Your task to perform on an android device: turn on data saver in the chrome app Image 0: 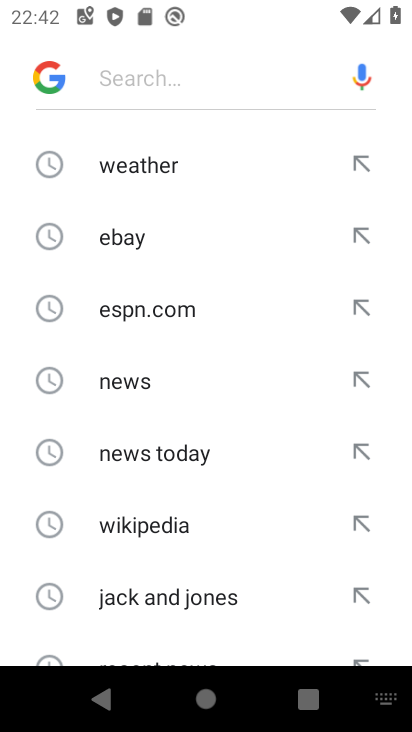
Step 0: press home button
Your task to perform on an android device: turn on data saver in the chrome app Image 1: 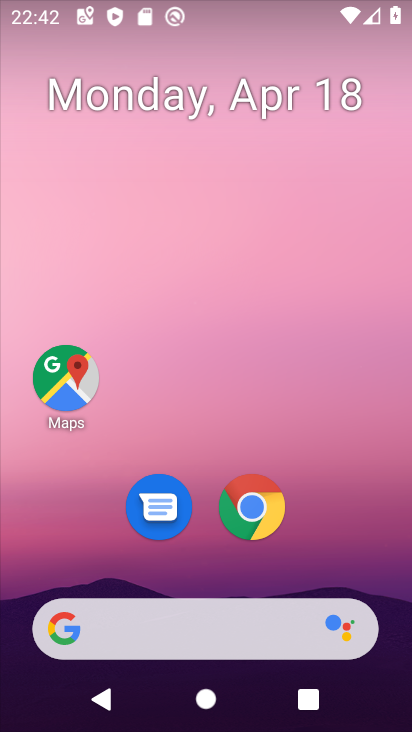
Step 1: click (262, 510)
Your task to perform on an android device: turn on data saver in the chrome app Image 2: 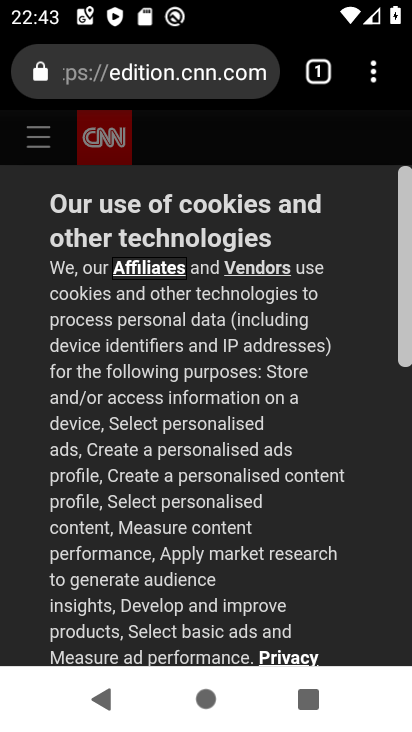
Step 2: press home button
Your task to perform on an android device: turn on data saver in the chrome app Image 3: 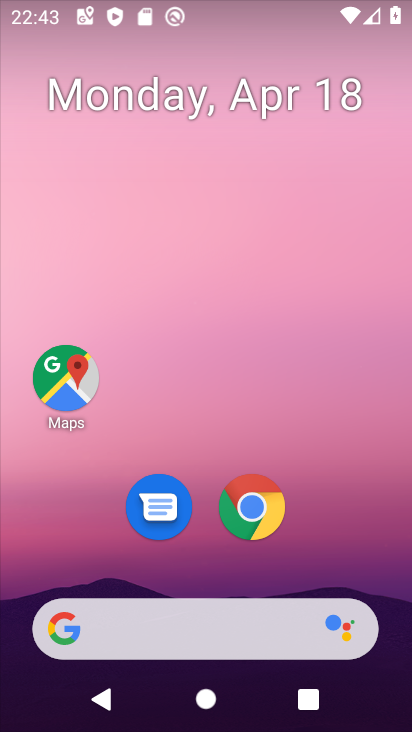
Step 3: click (258, 511)
Your task to perform on an android device: turn on data saver in the chrome app Image 4: 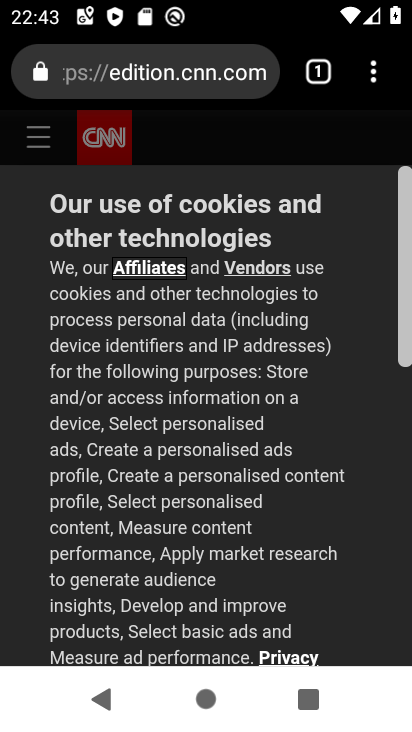
Step 4: click (371, 63)
Your task to perform on an android device: turn on data saver in the chrome app Image 5: 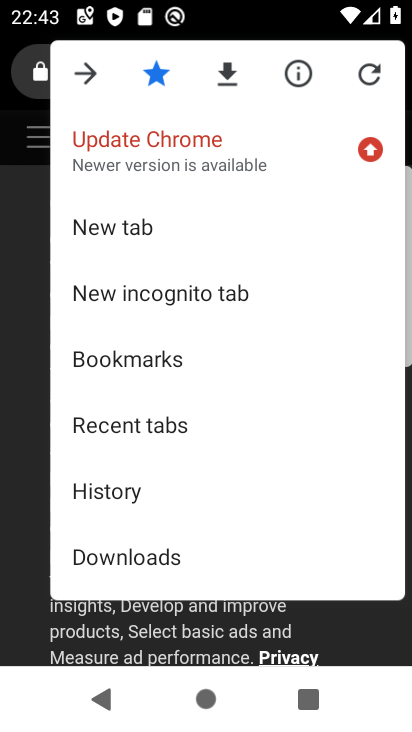
Step 5: drag from (227, 460) to (280, 251)
Your task to perform on an android device: turn on data saver in the chrome app Image 6: 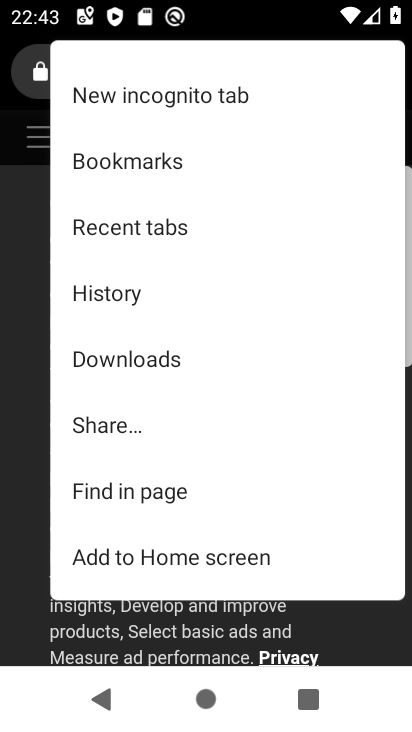
Step 6: drag from (201, 501) to (263, 180)
Your task to perform on an android device: turn on data saver in the chrome app Image 7: 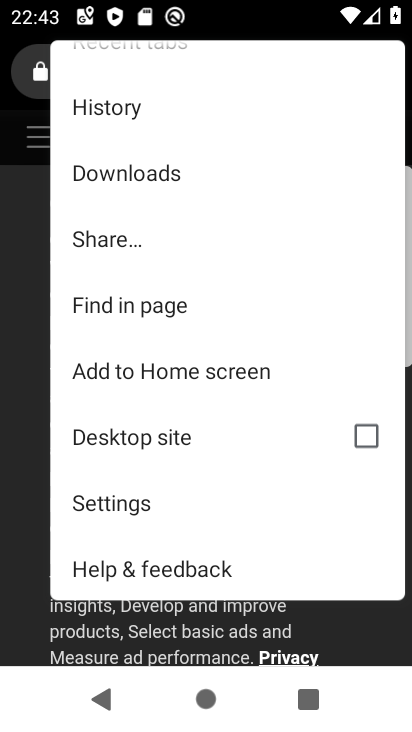
Step 7: click (162, 502)
Your task to perform on an android device: turn on data saver in the chrome app Image 8: 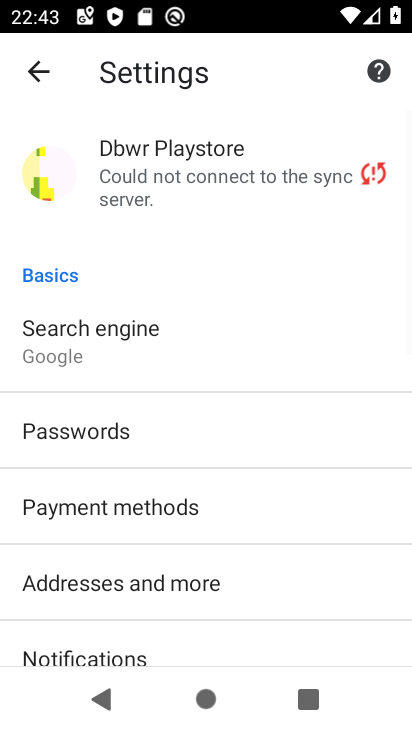
Step 8: drag from (241, 533) to (284, 219)
Your task to perform on an android device: turn on data saver in the chrome app Image 9: 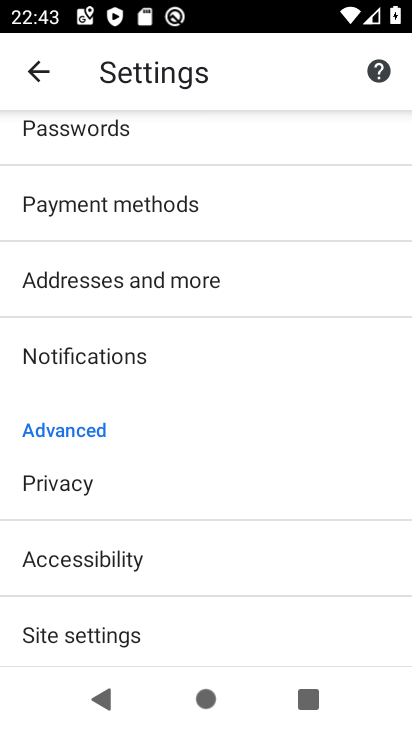
Step 9: drag from (240, 606) to (265, 259)
Your task to perform on an android device: turn on data saver in the chrome app Image 10: 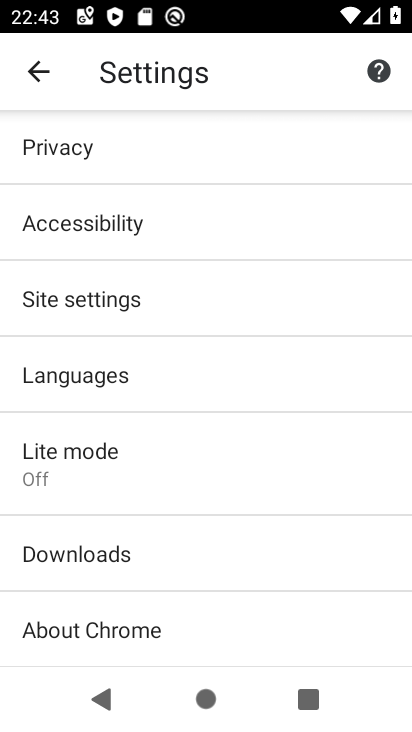
Step 10: drag from (209, 565) to (239, 219)
Your task to perform on an android device: turn on data saver in the chrome app Image 11: 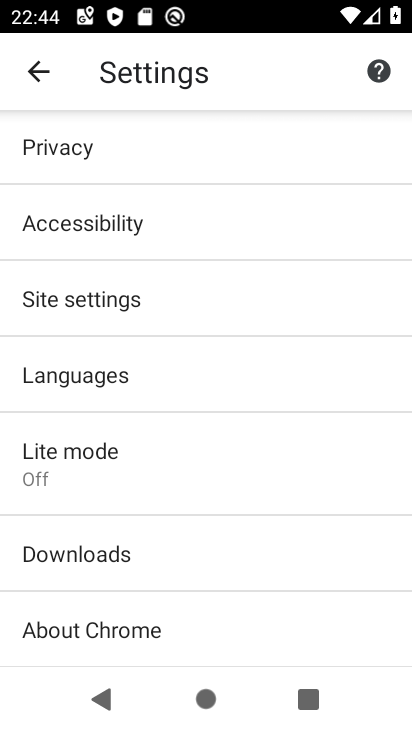
Step 11: click (197, 472)
Your task to perform on an android device: turn on data saver in the chrome app Image 12: 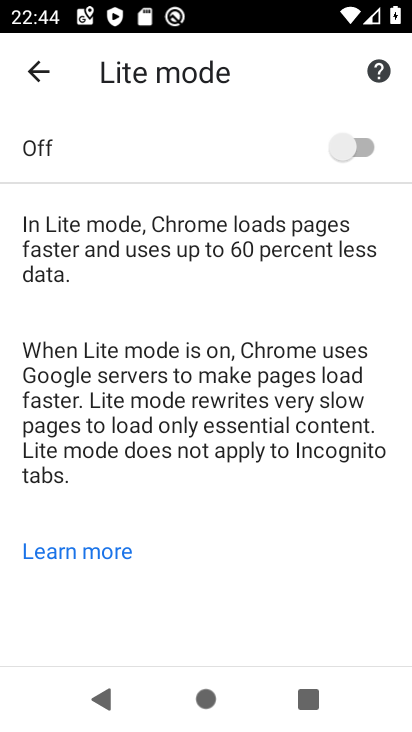
Step 12: click (364, 143)
Your task to perform on an android device: turn on data saver in the chrome app Image 13: 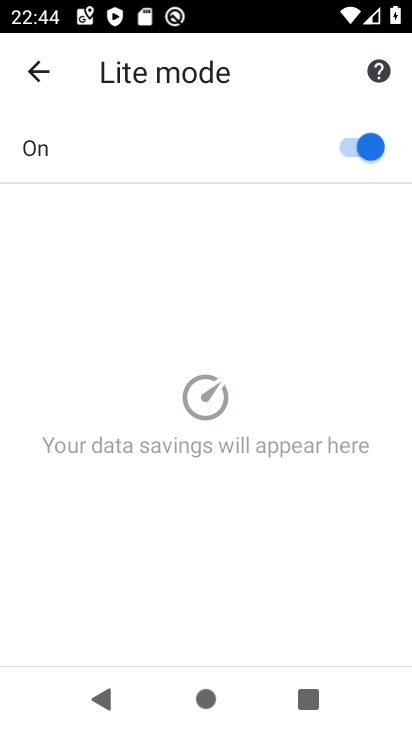
Step 13: task complete